Your task to perform on an android device: Is it going to rain tomorrow? Image 0: 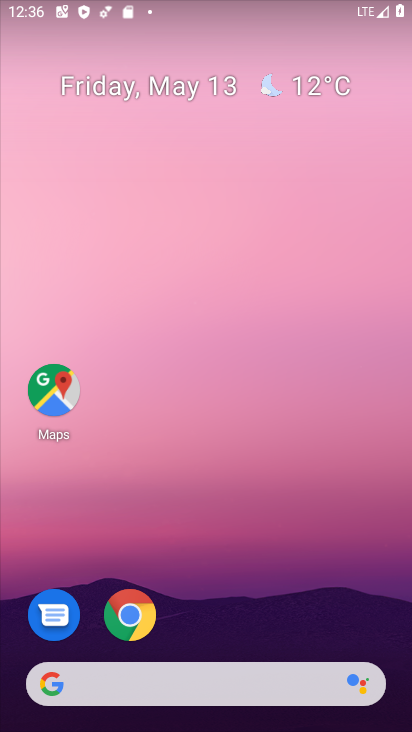
Step 0: drag from (179, 571) to (170, 218)
Your task to perform on an android device: Is it going to rain tomorrow? Image 1: 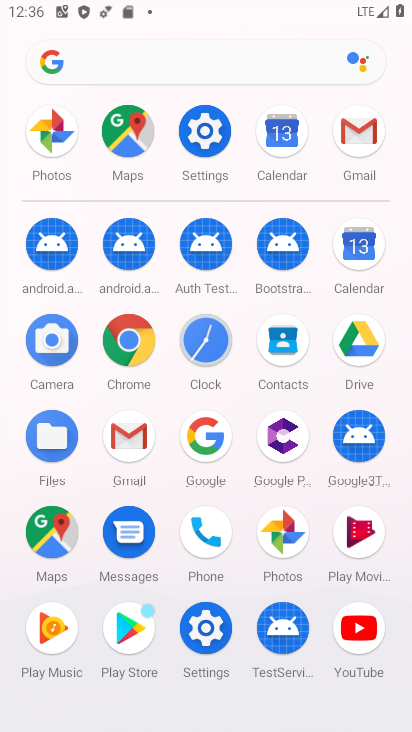
Step 1: click (192, 435)
Your task to perform on an android device: Is it going to rain tomorrow? Image 2: 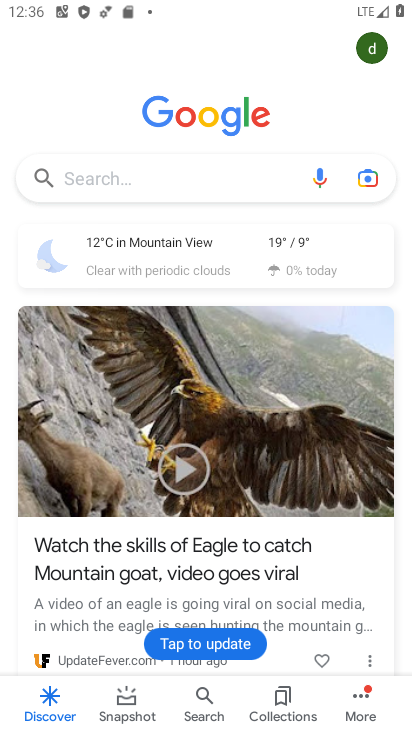
Step 2: click (150, 235)
Your task to perform on an android device: Is it going to rain tomorrow? Image 3: 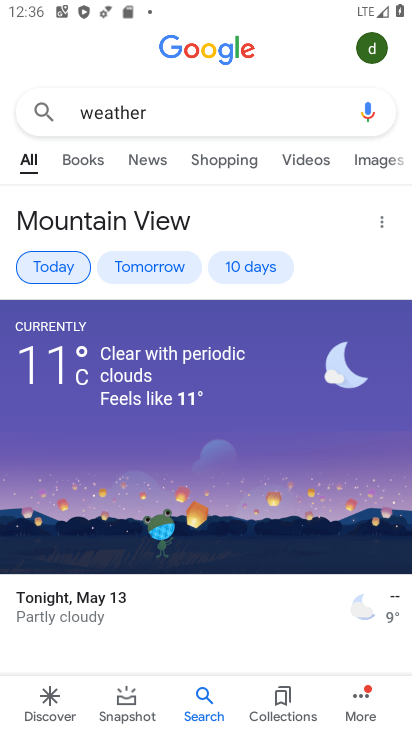
Step 3: click (179, 257)
Your task to perform on an android device: Is it going to rain tomorrow? Image 4: 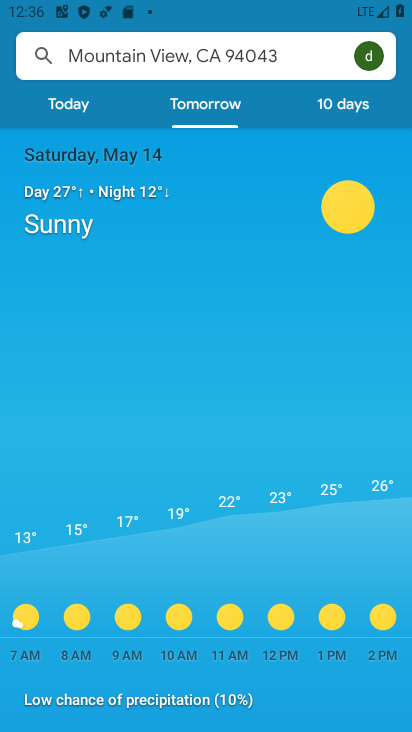
Step 4: task complete